Your task to perform on an android device: refresh tabs in the chrome app Image 0: 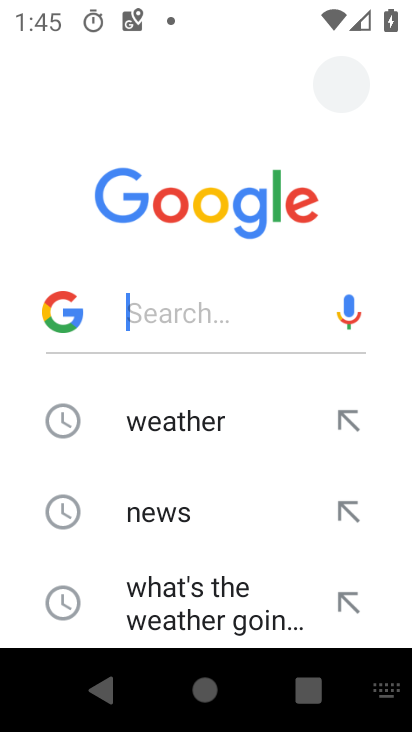
Step 0: press home button
Your task to perform on an android device: refresh tabs in the chrome app Image 1: 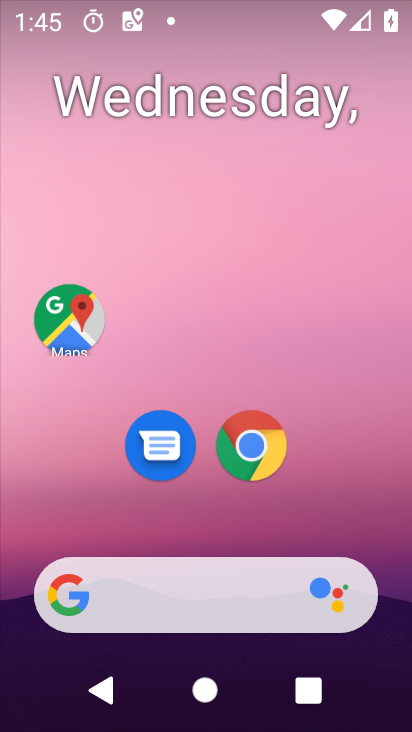
Step 1: click (261, 448)
Your task to perform on an android device: refresh tabs in the chrome app Image 2: 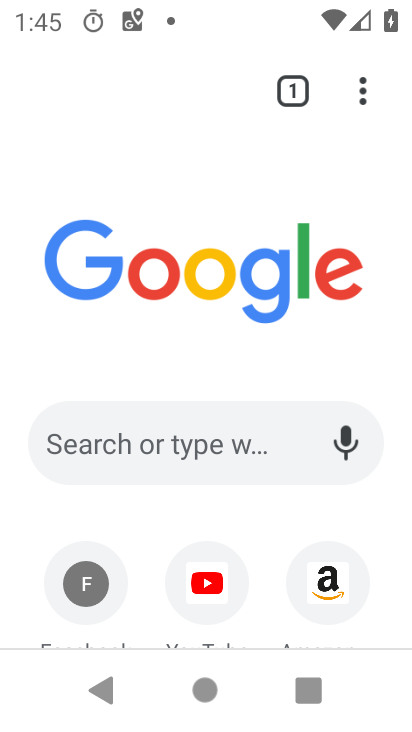
Step 2: drag from (363, 88) to (410, 79)
Your task to perform on an android device: refresh tabs in the chrome app Image 3: 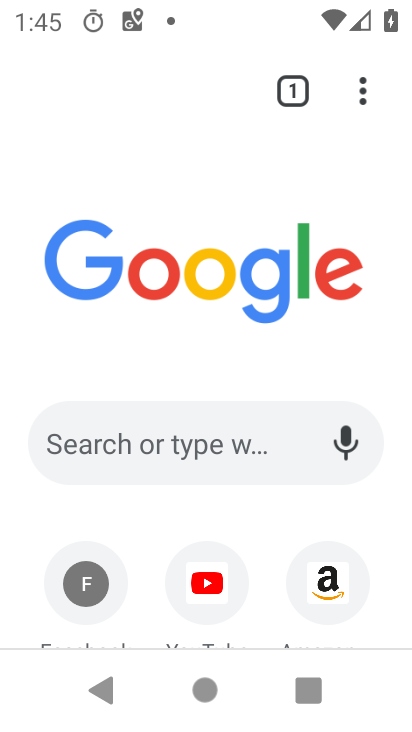
Step 3: click (401, 81)
Your task to perform on an android device: refresh tabs in the chrome app Image 4: 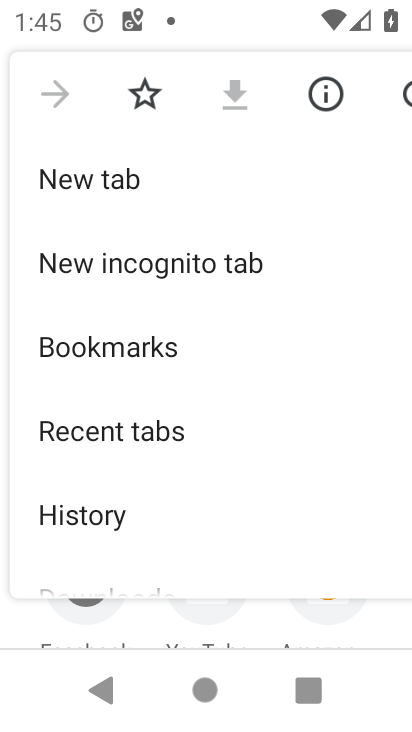
Step 4: click (402, 88)
Your task to perform on an android device: refresh tabs in the chrome app Image 5: 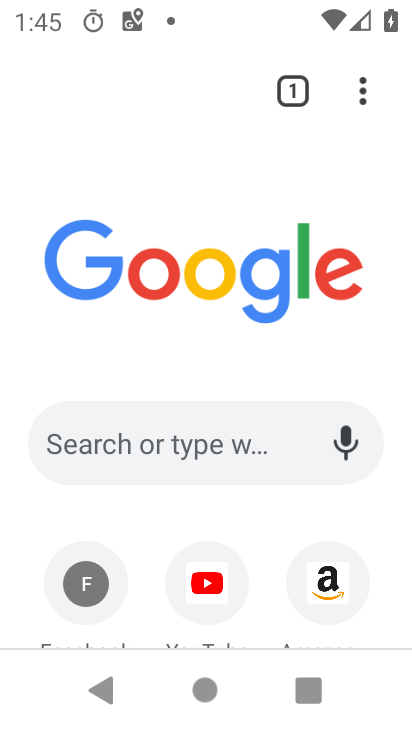
Step 5: task complete